Your task to perform on an android device: Do I have any events tomorrow? Image 0: 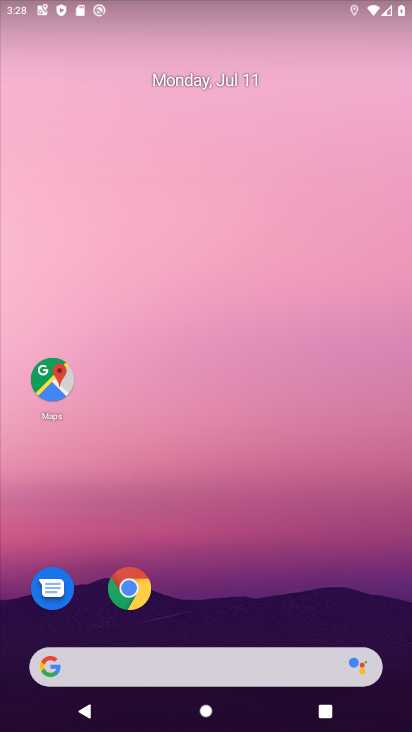
Step 0: drag from (217, 645) to (213, 282)
Your task to perform on an android device: Do I have any events tomorrow? Image 1: 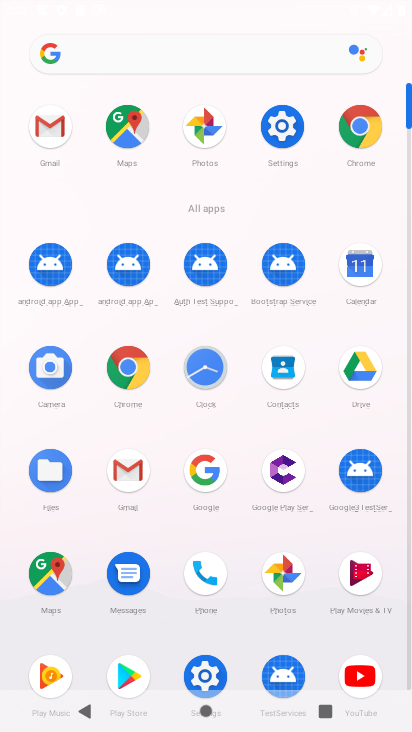
Step 1: click (355, 273)
Your task to perform on an android device: Do I have any events tomorrow? Image 2: 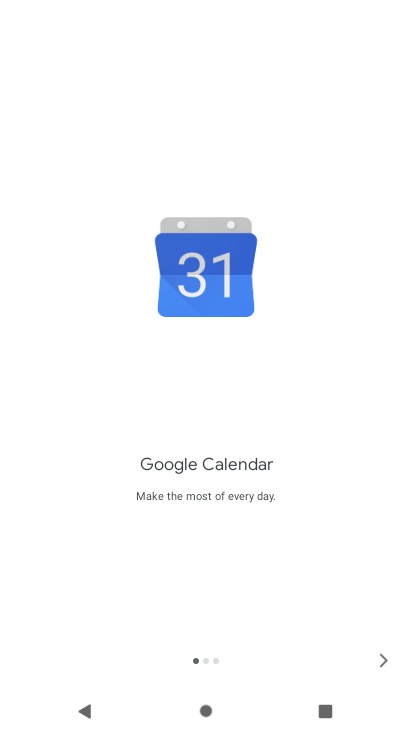
Step 2: click (385, 656)
Your task to perform on an android device: Do I have any events tomorrow? Image 3: 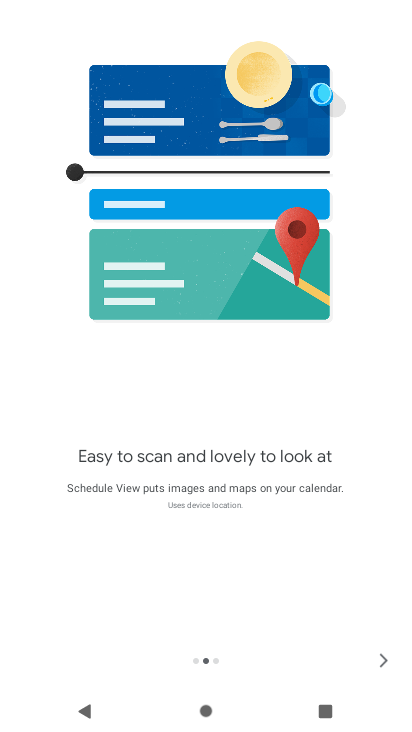
Step 3: click (382, 656)
Your task to perform on an android device: Do I have any events tomorrow? Image 4: 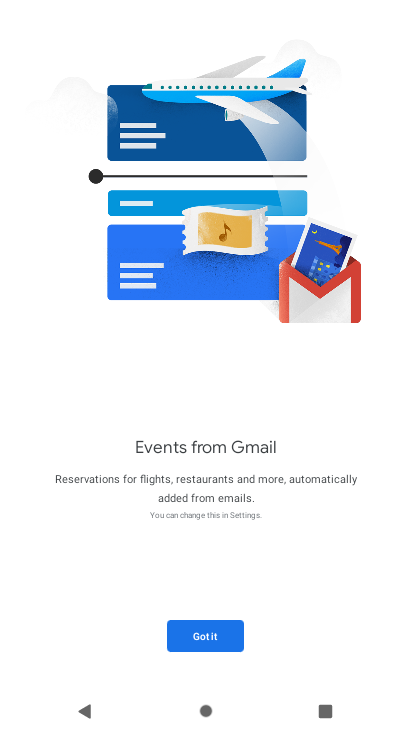
Step 4: click (226, 635)
Your task to perform on an android device: Do I have any events tomorrow? Image 5: 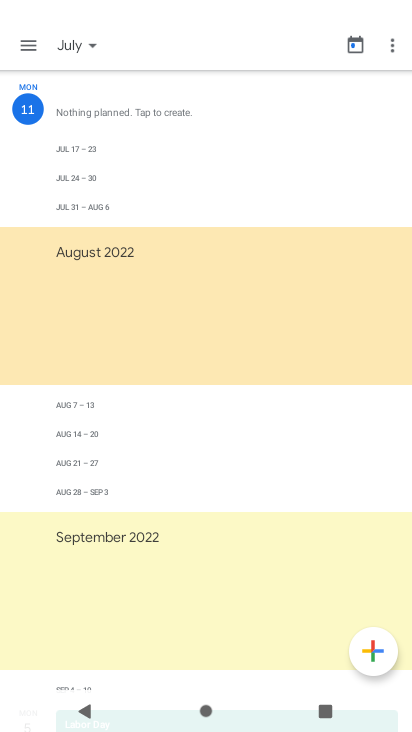
Step 5: click (86, 51)
Your task to perform on an android device: Do I have any events tomorrow? Image 6: 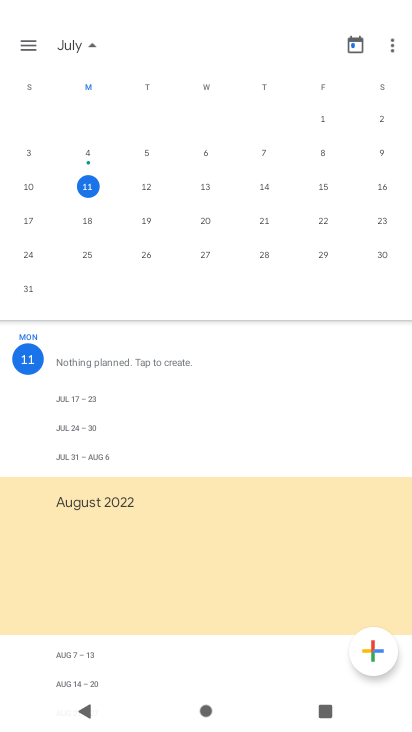
Step 6: click (147, 184)
Your task to perform on an android device: Do I have any events tomorrow? Image 7: 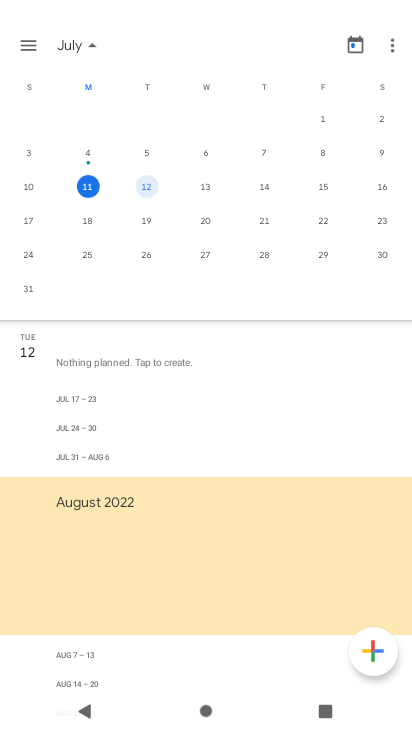
Step 7: task complete